Your task to perform on an android device: Search for vegetarian restaurants on Maps Image 0: 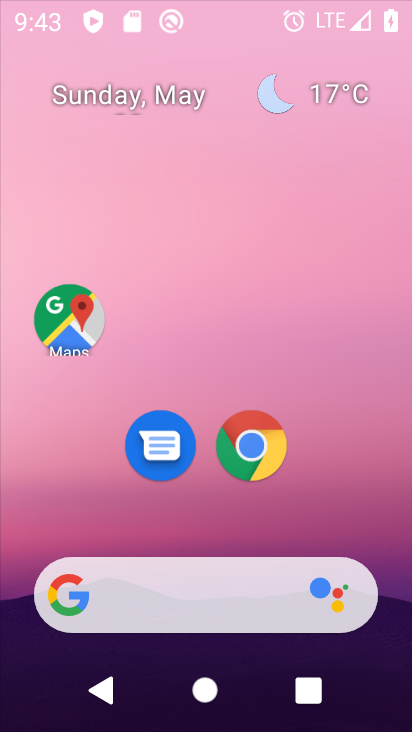
Step 0: click (402, 9)
Your task to perform on an android device: Search for vegetarian restaurants on Maps Image 1: 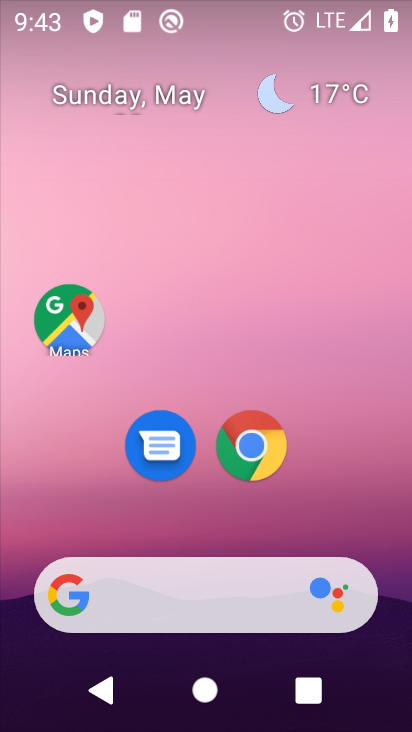
Step 1: drag from (118, 563) to (154, 544)
Your task to perform on an android device: Search for vegetarian restaurants on Maps Image 2: 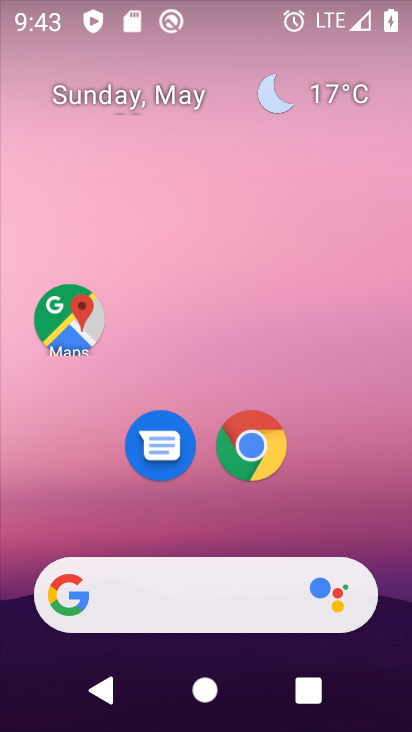
Step 2: drag from (234, 504) to (370, 0)
Your task to perform on an android device: Search for vegetarian restaurants on Maps Image 3: 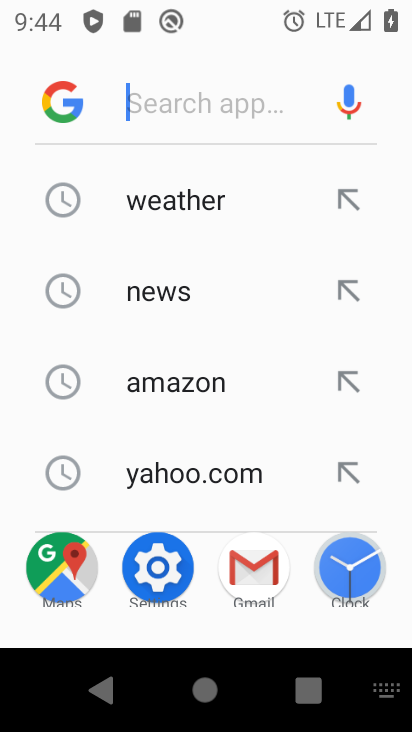
Step 3: press home button
Your task to perform on an android device: Search for vegetarian restaurants on Maps Image 4: 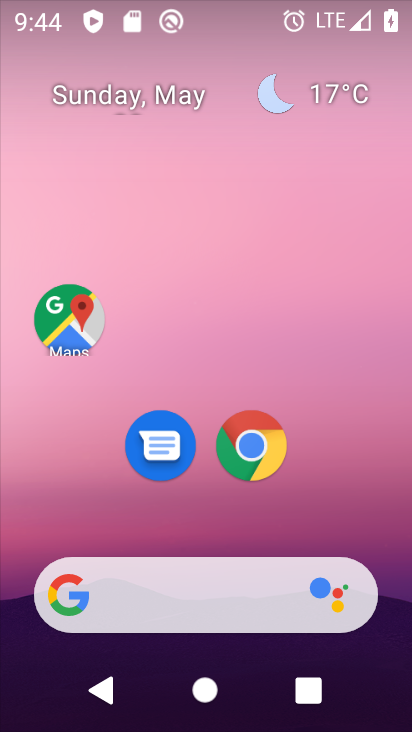
Step 4: drag from (216, 478) to (316, 66)
Your task to perform on an android device: Search for vegetarian restaurants on Maps Image 5: 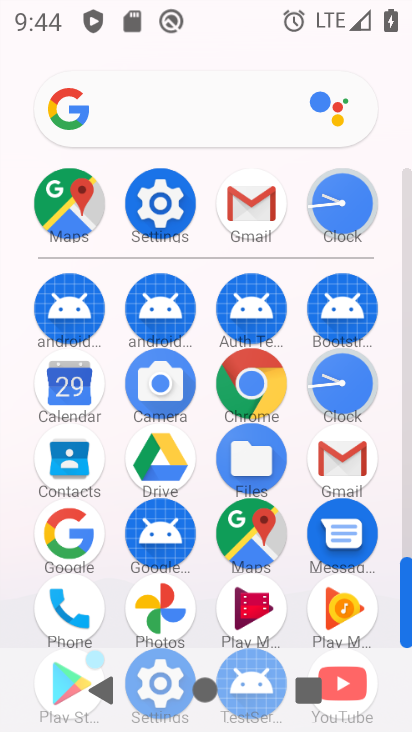
Step 5: click (250, 546)
Your task to perform on an android device: Search for vegetarian restaurants on Maps Image 6: 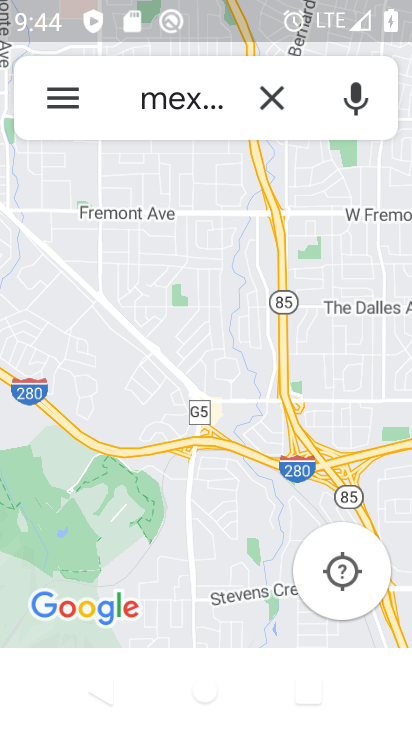
Step 6: click (261, 110)
Your task to perform on an android device: Search for vegetarian restaurants on Maps Image 7: 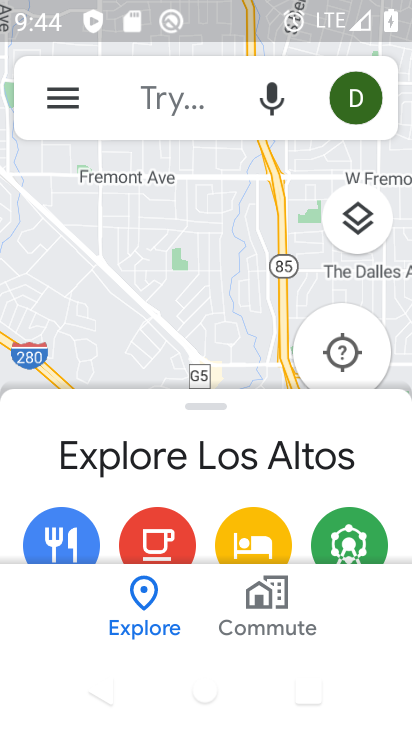
Step 7: click (172, 119)
Your task to perform on an android device: Search for vegetarian restaurants on Maps Image 8: 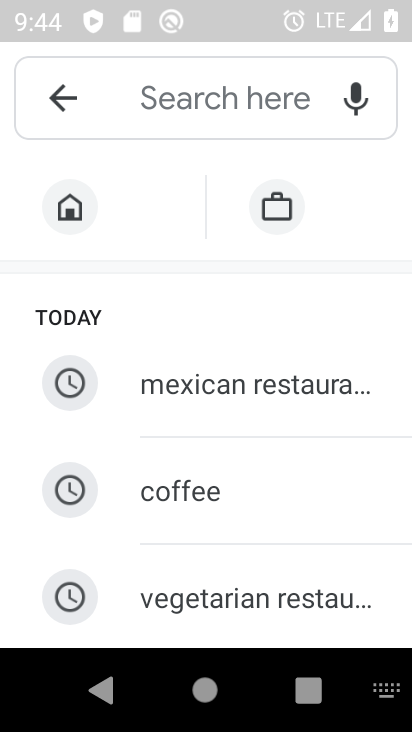
Step 8: click (233, 575)
Your task to perform on an android device: Search for vegetarian restaurants on Maps Image 9: 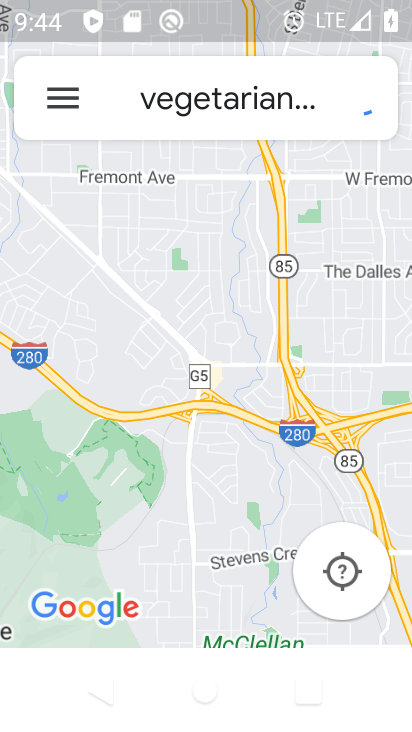
Step 9: task complete